Your task to perform on an android device: Check the weather Image 0: 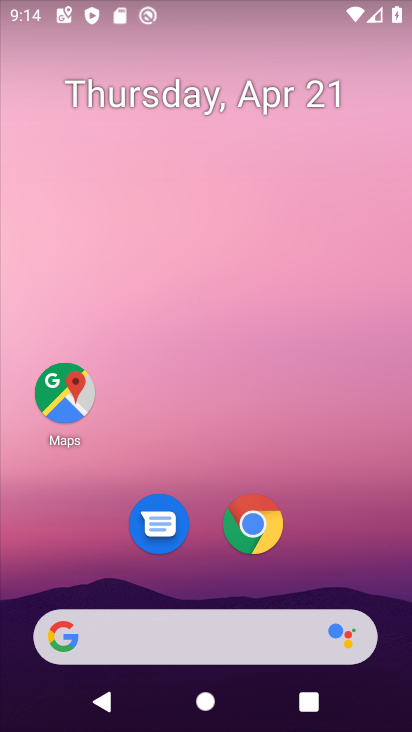
Step 0: drag from (331, 536) to (356, 136)
Your task to perform on an android device: Check the weather Image 1: 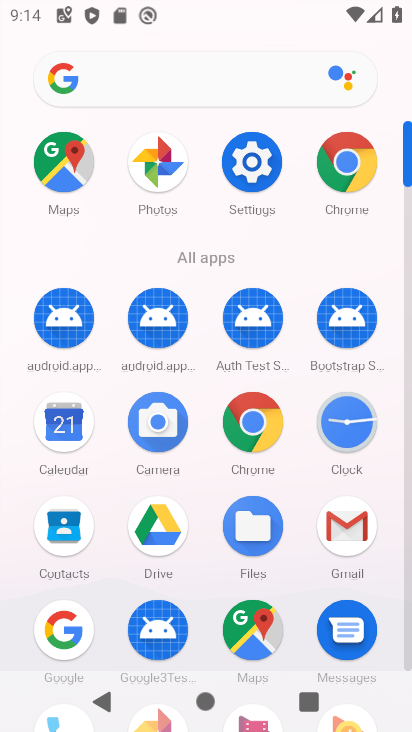
Step 1: click (66, 623)
Your task to perform on an android device: Check the weather Image 2: 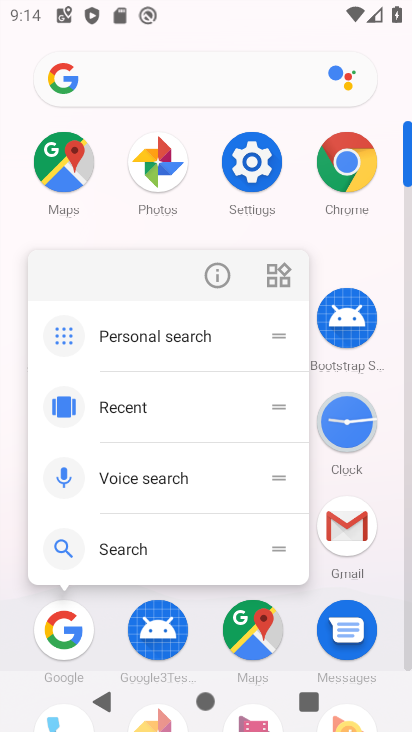
Step 2: click (66, 618)
Your task to perform on an android device: Check the weather Image 3: 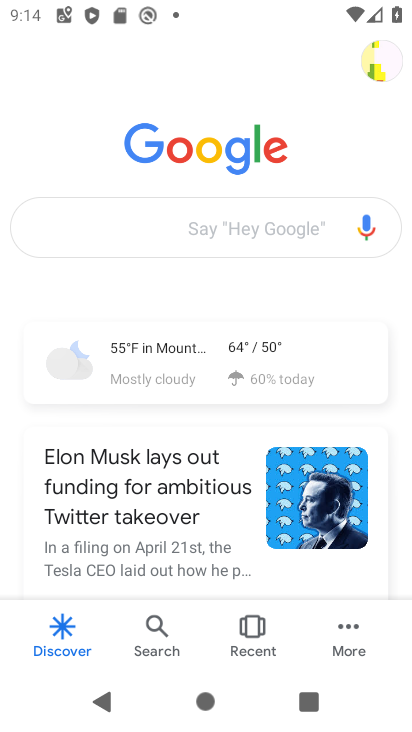
Step 3: click (249, 359)
Your task to perform on an android device: Check the weather Image 4: 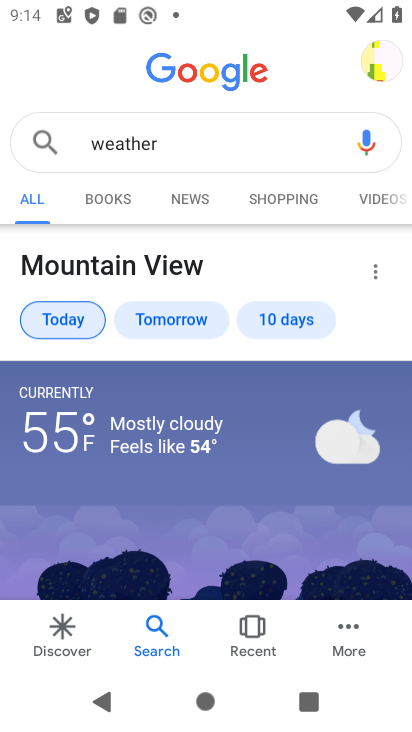
Step 4: task complete